Your task to perform on an android device: set the stopwatch Image 0: 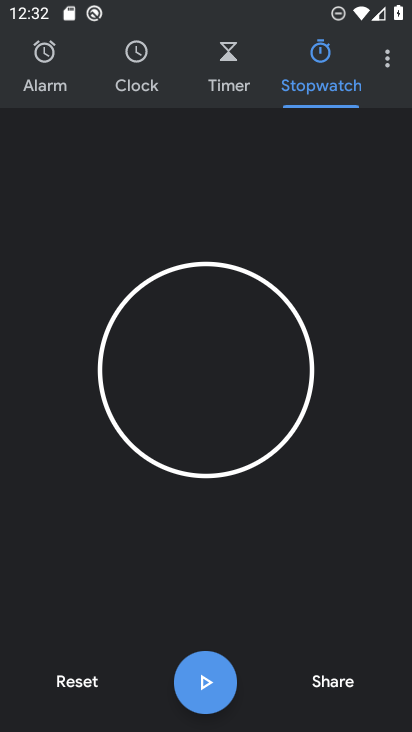
Step 0: click (202, 690)
Your task to perform on an android device: set the stopwatch Image 1: 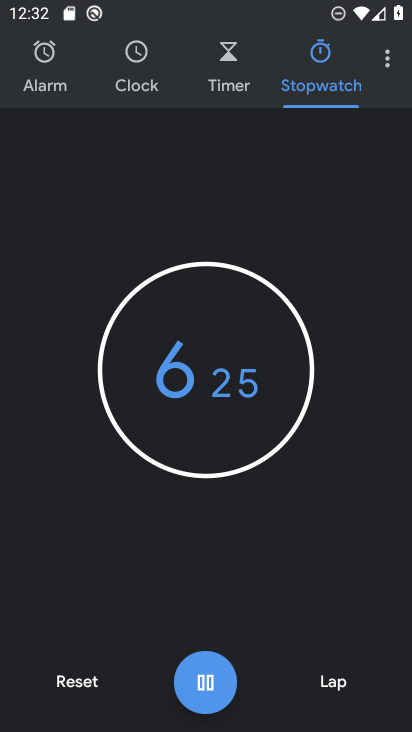
Step 1: click (202, 690)
Your task to perform on an android device: set the stopwatch Image 2: 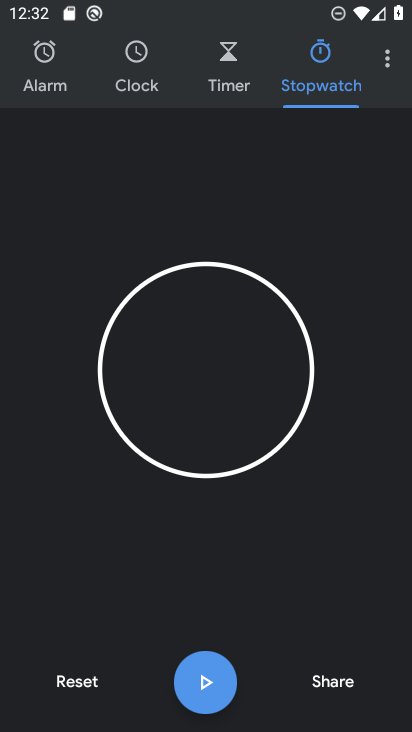
Step 2: task complete